Your task to perform on an android device: Open sound settings Image 0: 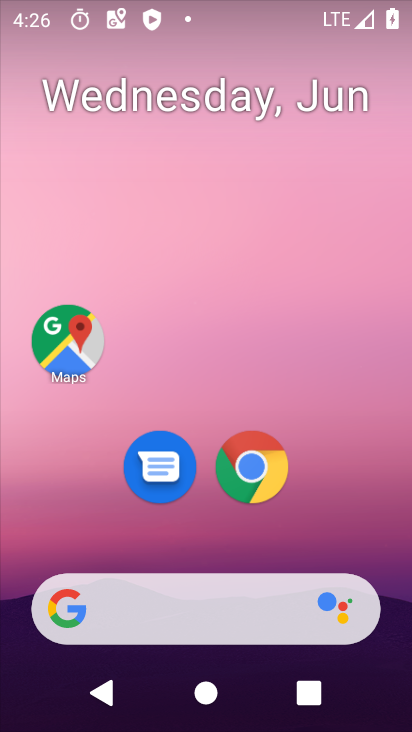
Step 0: drag from (331, 517) to (224, 10)
Your task to perform on an android device: Open sound settings Image 1: 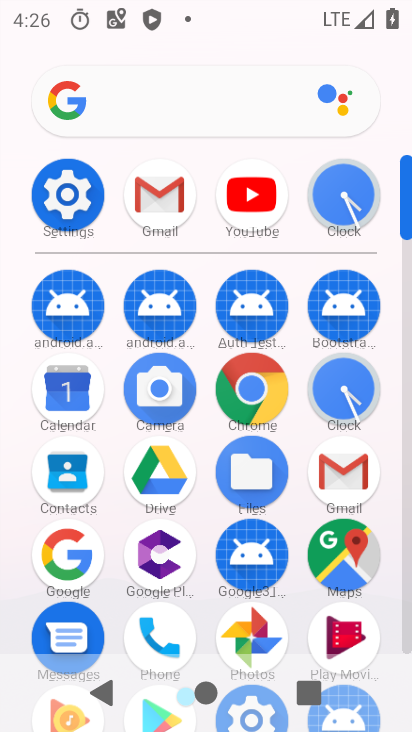
Step 1: click (76, 198)
Your task to perform on an android device: Open sound settings Image 2: 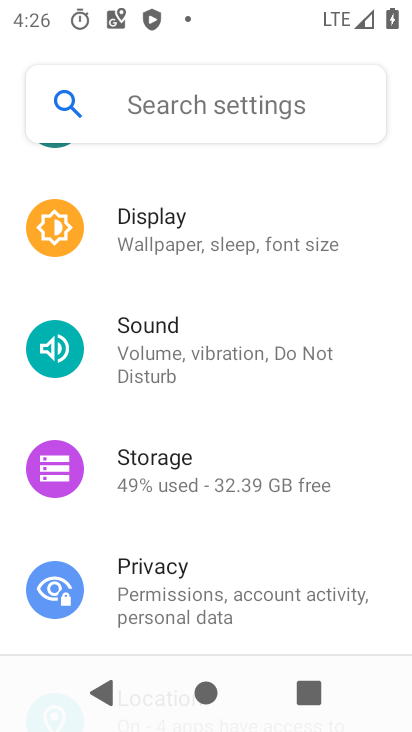
Step 2: click (213, 338)
Your task to perform on an android device: Open sound settings Image 3: 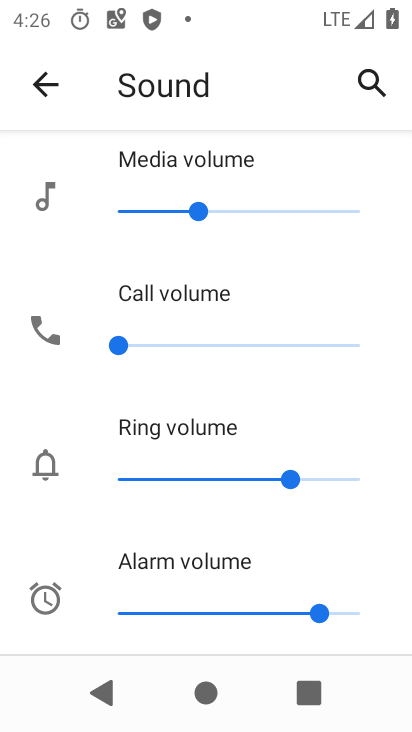
Step 3: task complete